Your task to perform on an android device: open app "Yahoo Mail" (install if not already installed) Image 0: 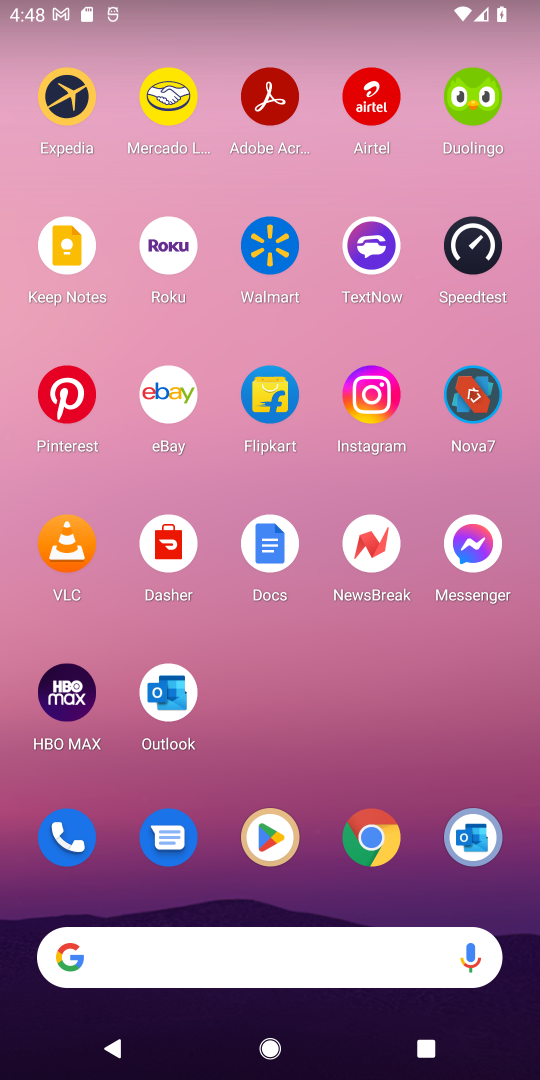
Step 0: press home button
Your task to perform on an android device: open app "Yahoo Mail" (install if not already installed) Image 1: 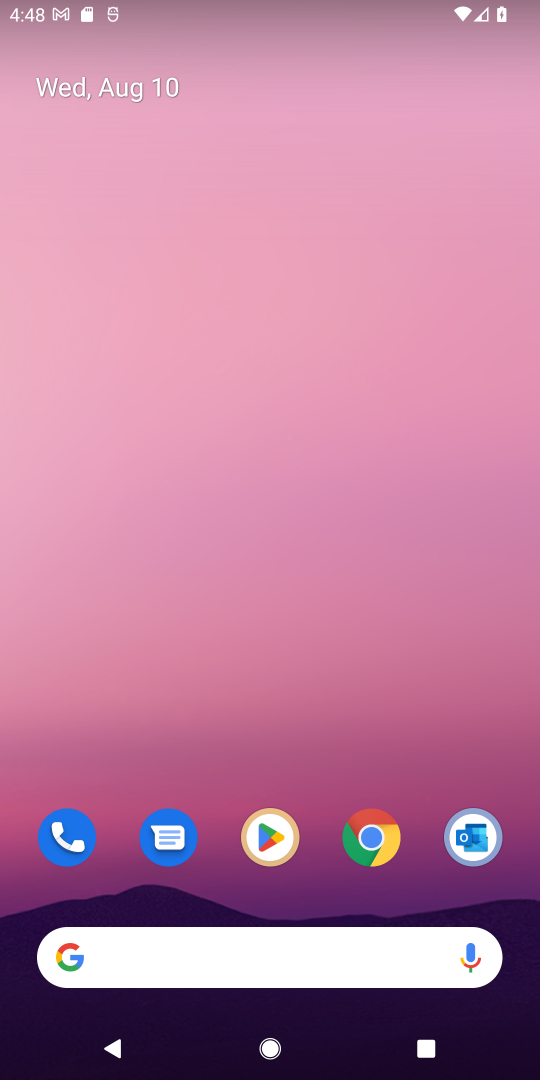
Step 1: click (269, 834)
Your task to perform on an android device: open app "Yahoo Mail" (install if not already installed) Image 2: 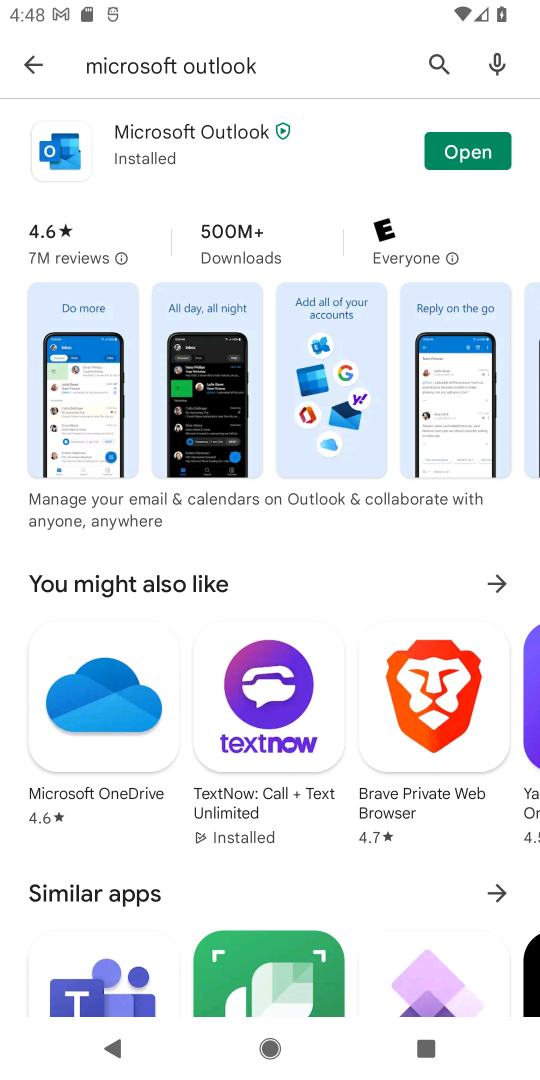
Step 2: click (434, 63)
Your task to perform on an android device: open app "Yahoo Mail" (install if not already installed) Image 3: 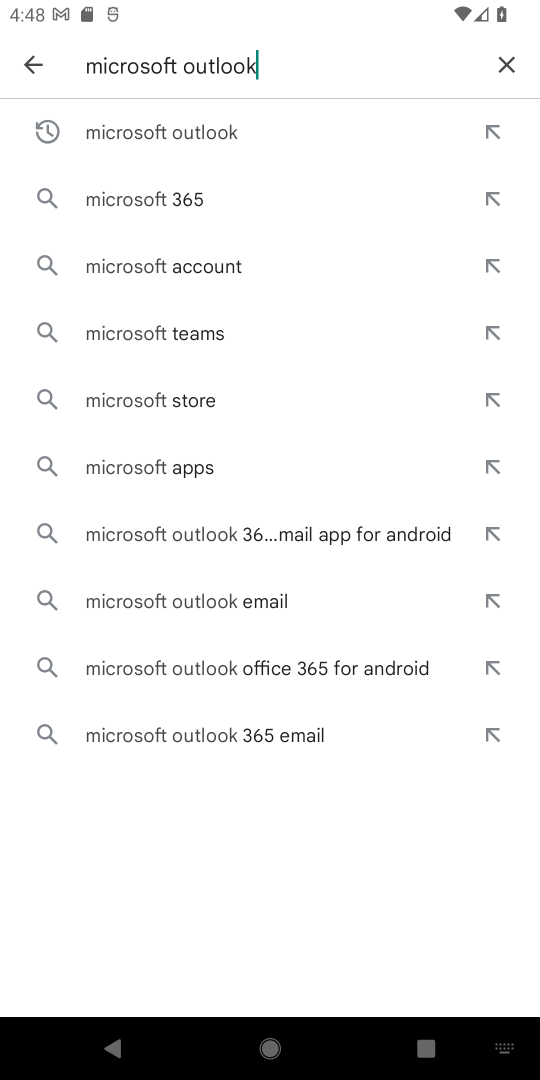
Step 3: click (510, 58)
Your task to perform on an android device: open app "Yahoo Mail" (install if not already installed) Image 4: 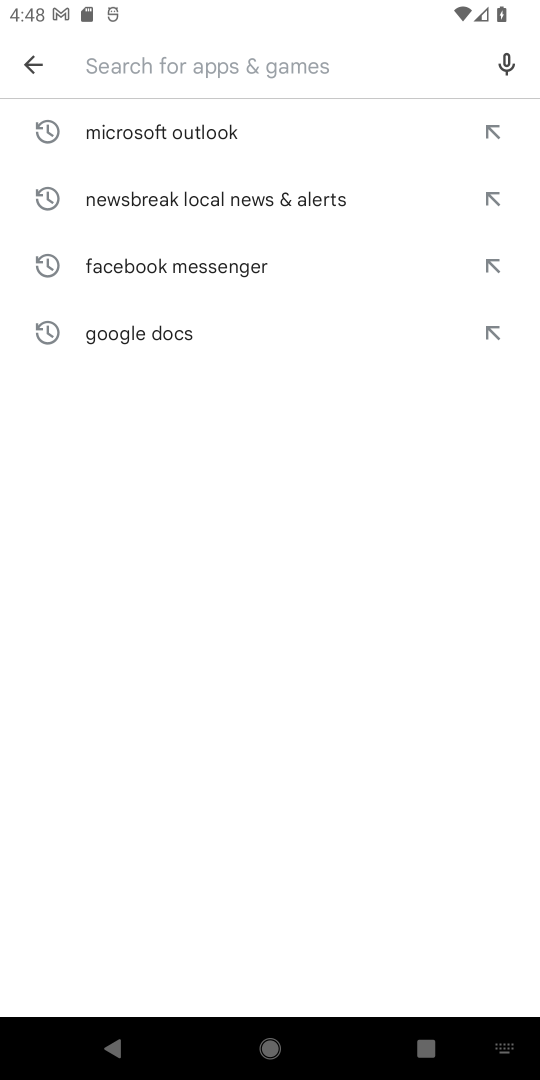
Step 4: type "Yahoo Mail"
Your task to perform on an android device: open app "Yahoo Mail" (install if not already installed) Image 5: 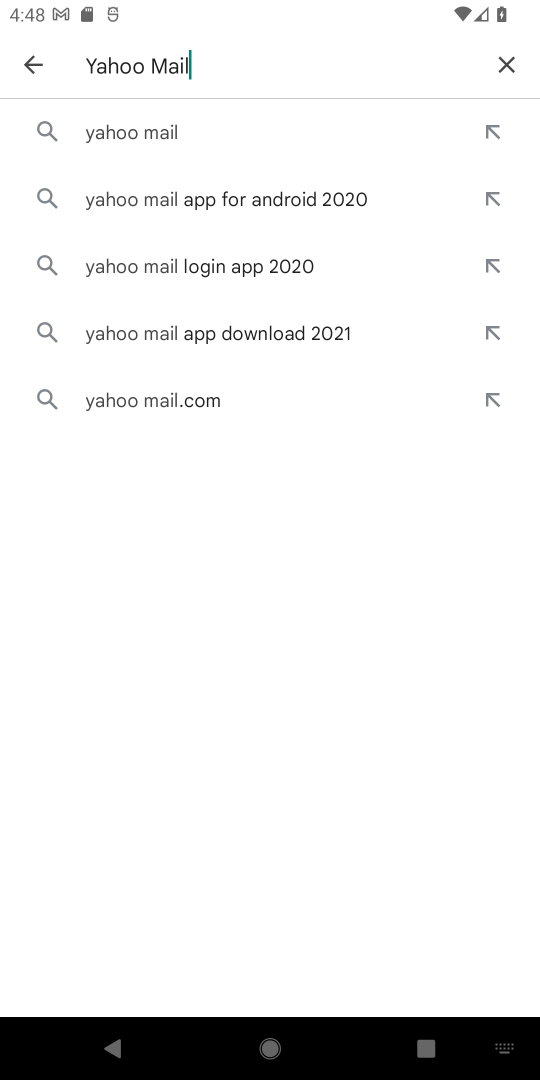
Step 5: click (150, 130)
Your task to perform on an android device: open app "Yahoo Mail" (install if not already installed) Image 6: 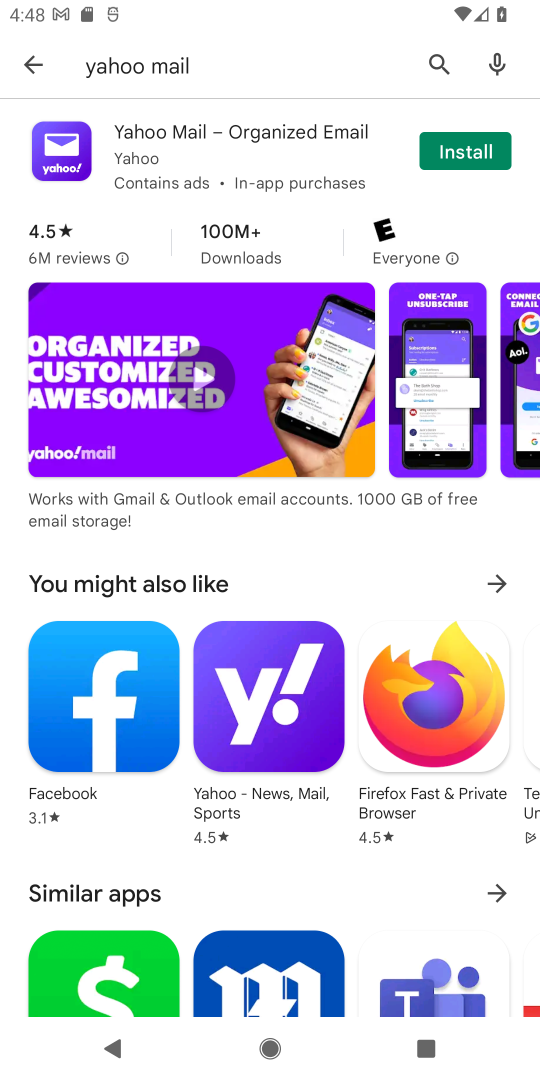
Step 6: click (465, 145)
Your task to perform on an android device: open app "Yahoo Mail" (install if not already installed) Image 7: 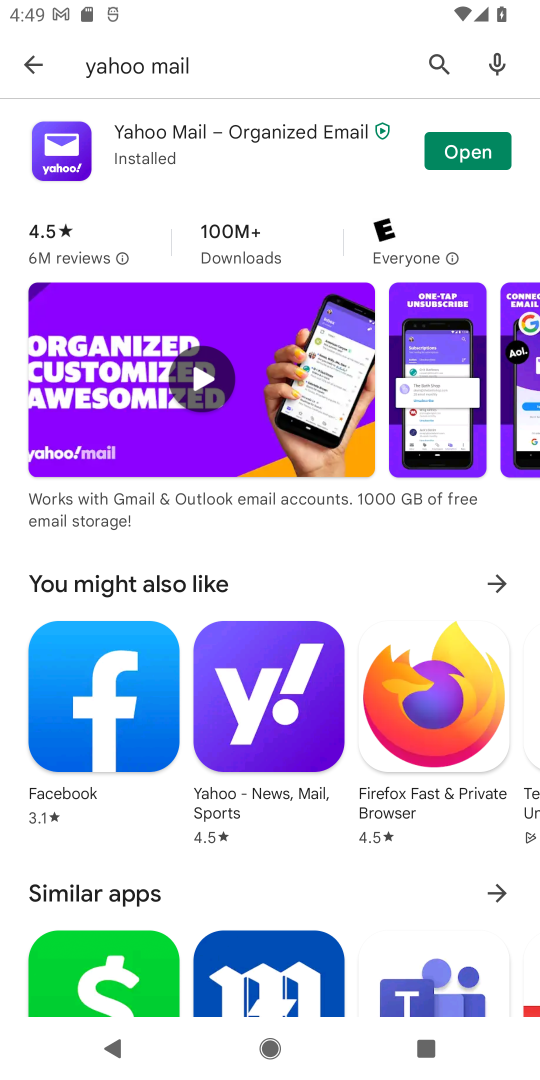
Step 7: click (458, 144)
Your task to perform on an android device: open app "Yahoo Mail" (install if not already installed) Image 8: 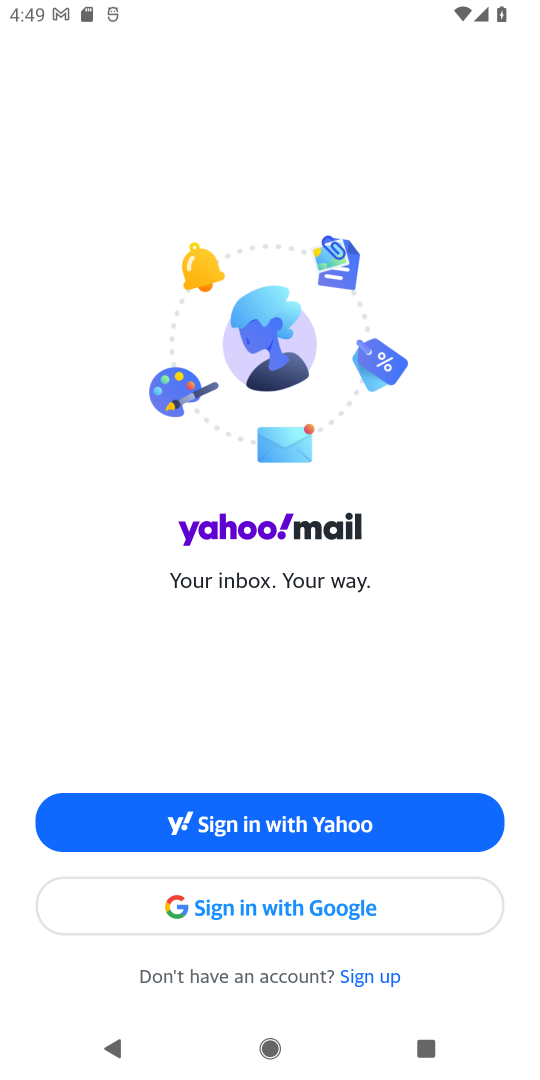
Step 8: task complete